Your task to perform on an android device: turn on wifi Image 0: 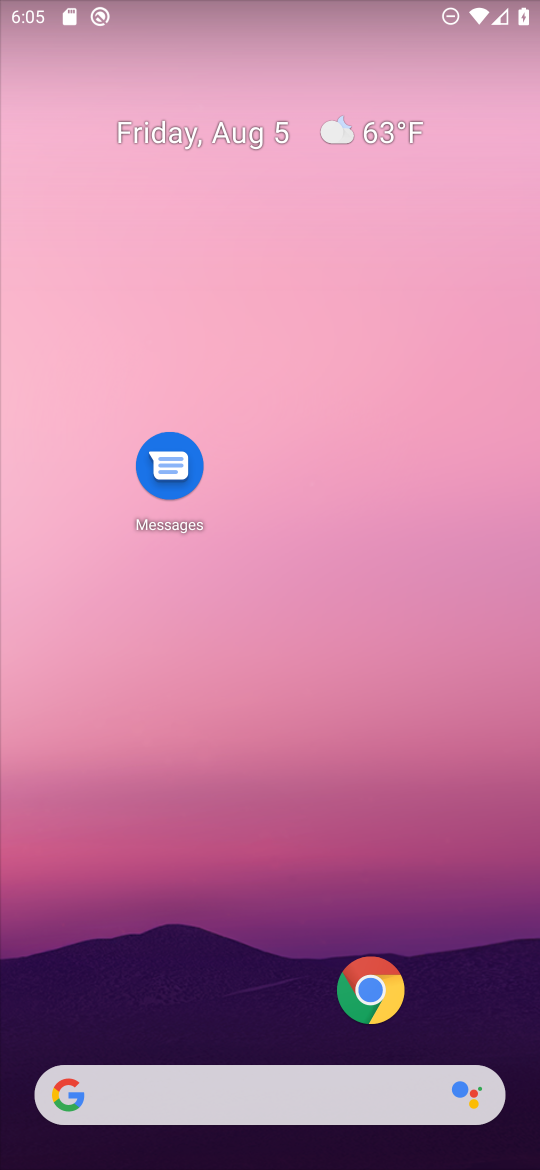
Step 0: drag from (287, 916) to (287, 446)
Your task to perform on an android device: turn on wifi Image 1: 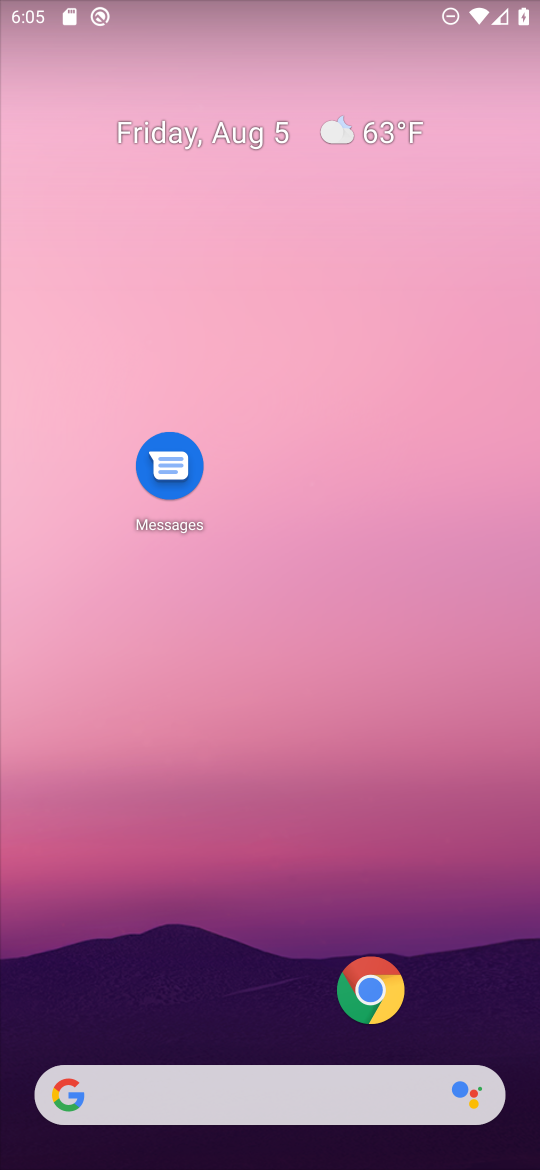
Step 1: drag from (221, 967) to (221, 573)
Your task to perform on an android device: turn on wifi Image 2: 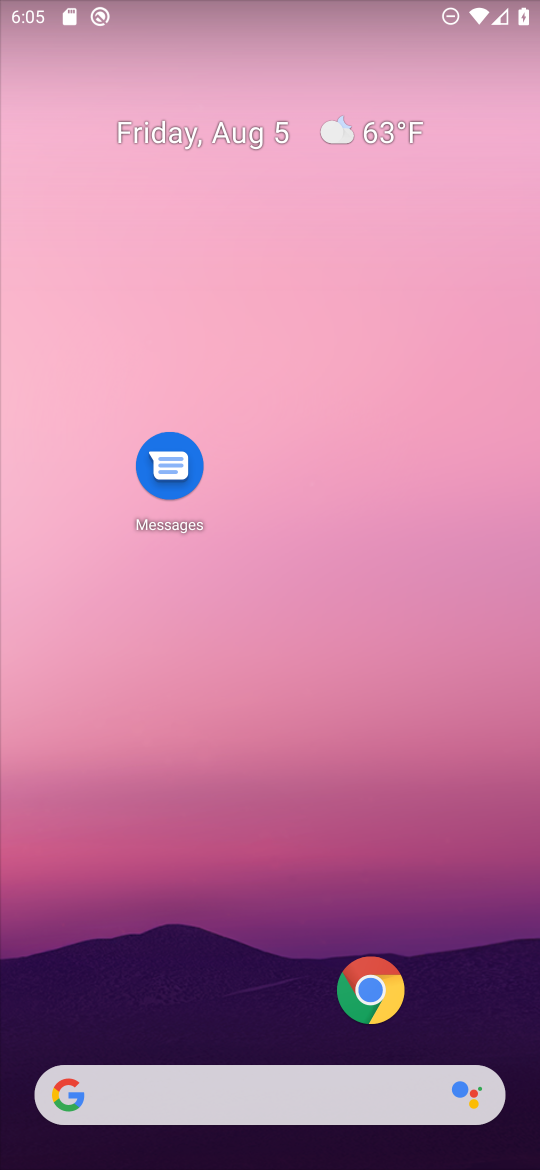
Step 2: drag from (315, 980) to (224, 329)
Your task to perform on an android device: turn on wifi Image 3: 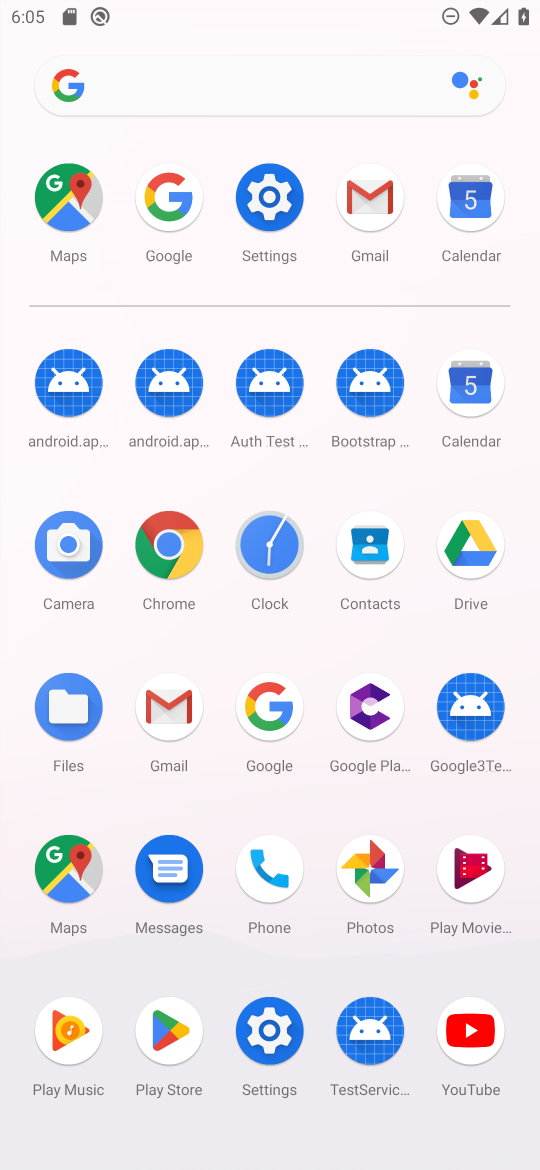
Step 3: click (295, 184)
Your task to perform on an android device: turn on wifi Image 4: 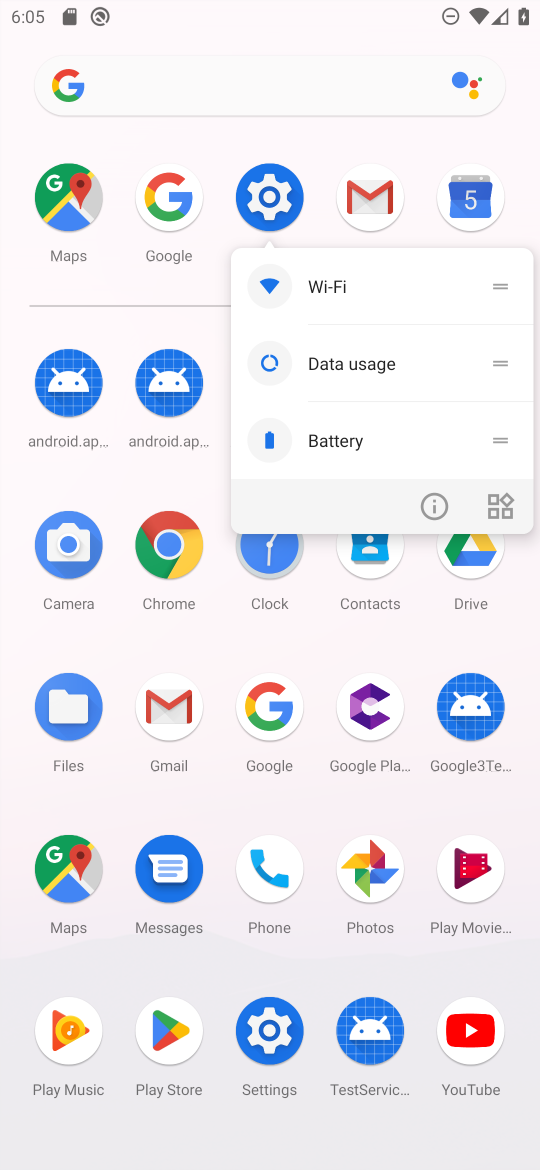
Step 4: click (283, 176)
Your task to perform on an android device: turn on wifi Image 5: 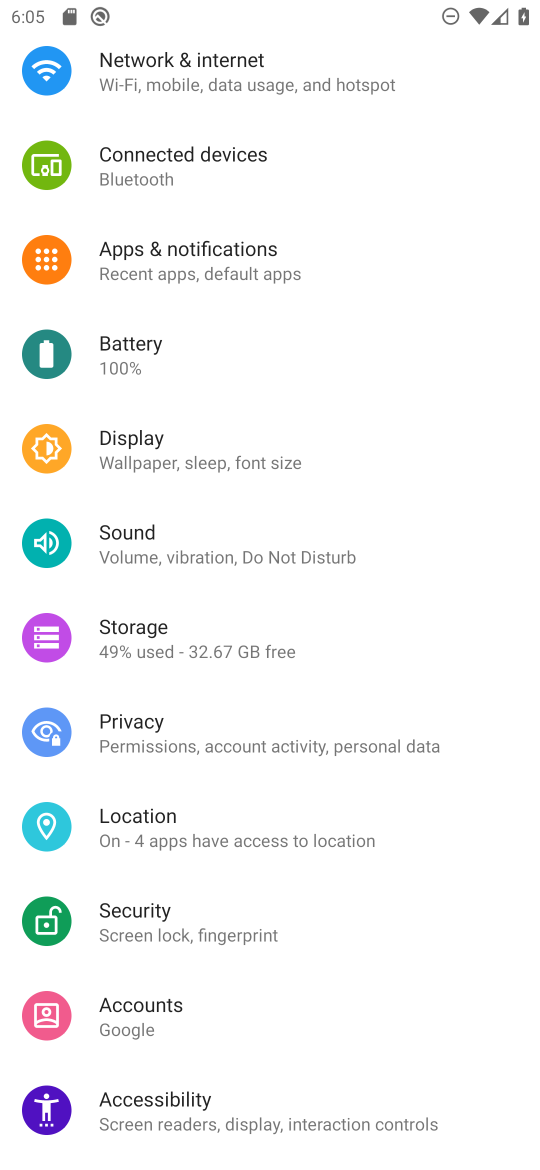
Step 5: click (193, 71)
Your task to perform on an android device: turn on wifi Image 6: 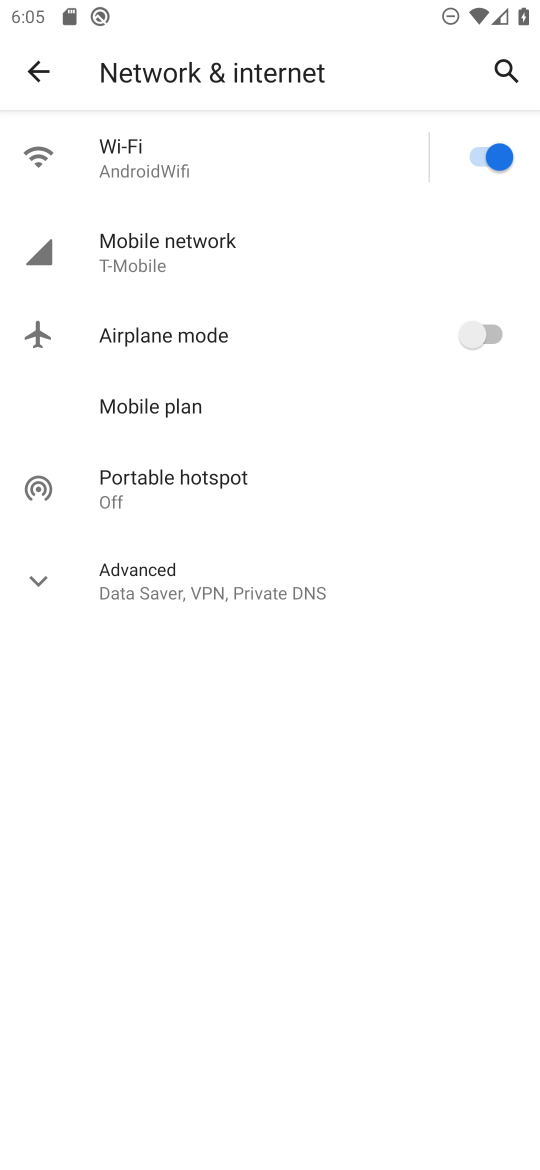
Step 6: task complete